Your task to perform on an android device: turn off javascript in the chrome app Image 0: 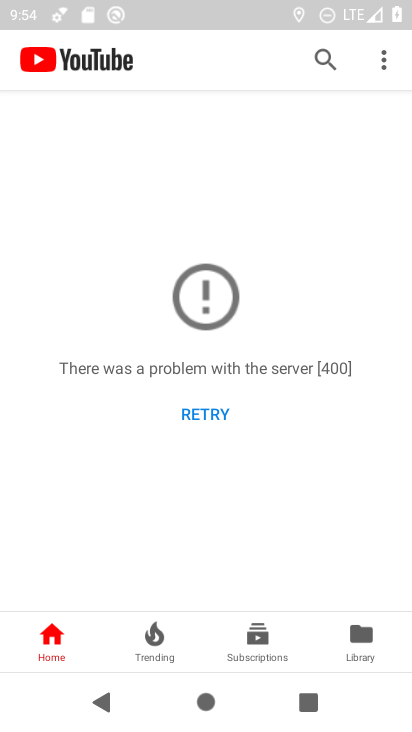
Step 0: press home button
Your task to perform on an android device: turn off javascript in the chrome app Image 1: 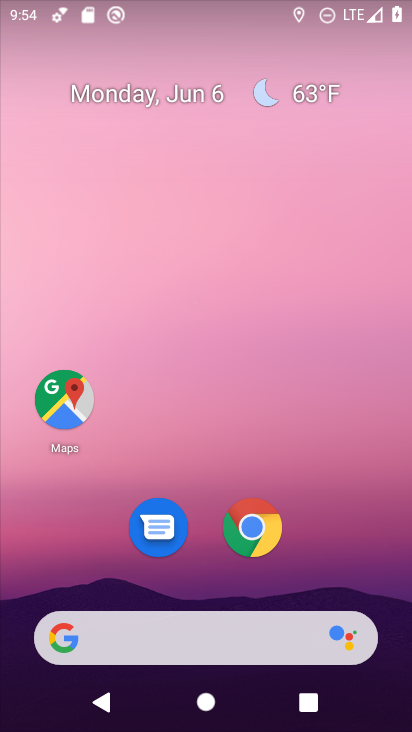
Step 1: drag from (364, 544) to (378, 124)
Your task to perform on an android device: turn off javascript in the chrome app Image 2: 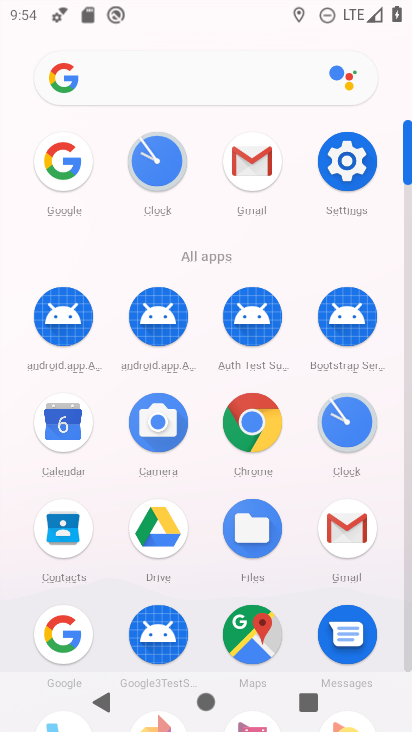
Step 2: click (255, 431)
Your task to perform on an android device: turn off javascript in the chrome app Image 3: 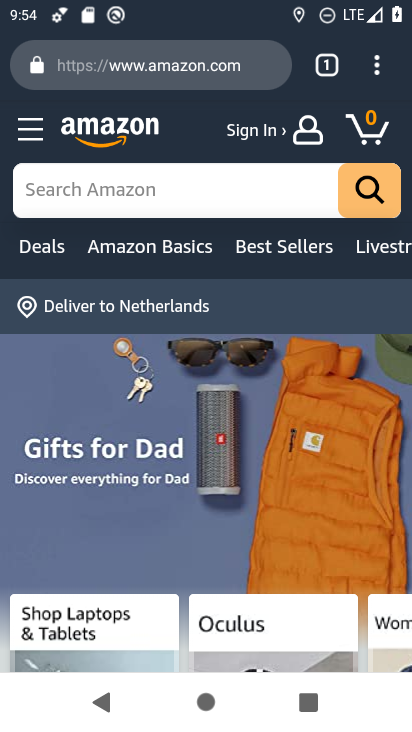
Step 3: click (376, 70)
Your task to perform on an android device: turn off javascript in the chrome app Image 4: 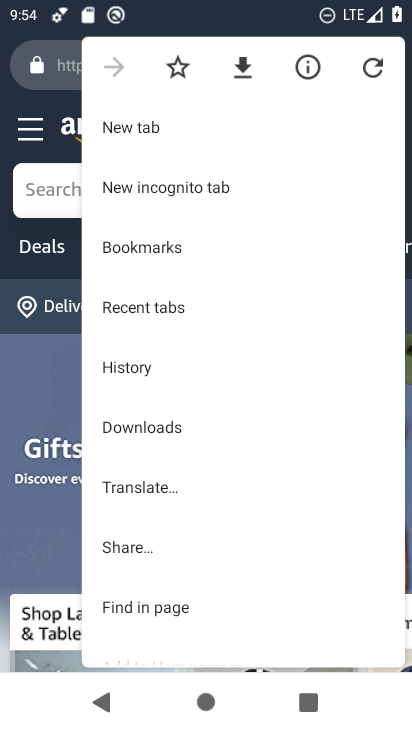
Step 4: drag from (308, 401) to (328, 301)
Your task to perform on an android device: turn off javascript in the chrome app Image 5: 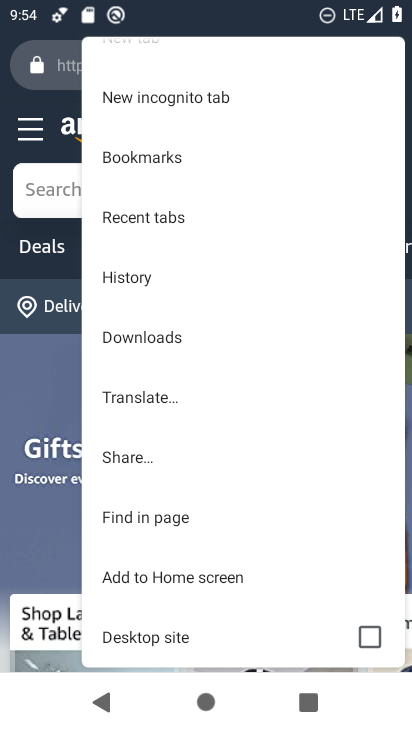
Step 5: drag from (306, 476) to (310, 336)
Your task to perform on an android device: turn off javascript in the chrome app Image 6: 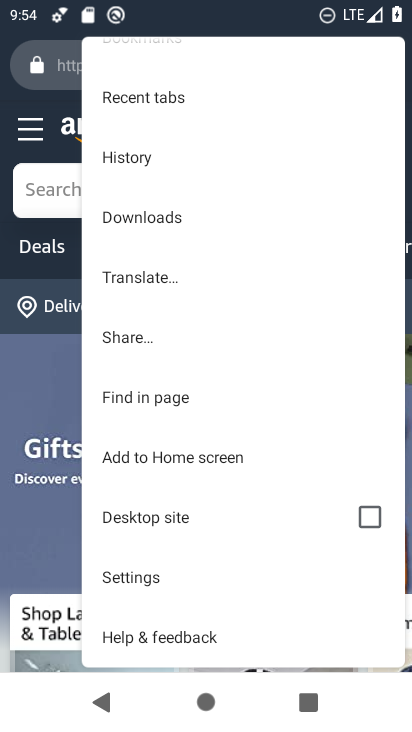
Step 6: click (185, 582)
Your task to perform on an android device: turn off javascript in the chrome app Image 7: 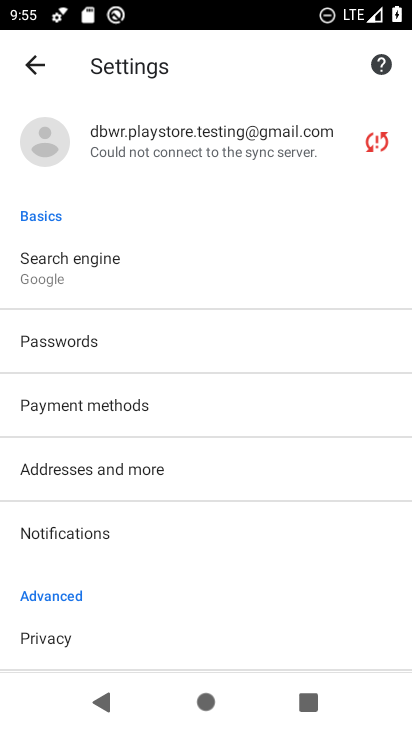
Step 7: drag from (307, 534) to (322, 395)
Your task to perform on an android device: turn off javascript in the chrome app Image 8: 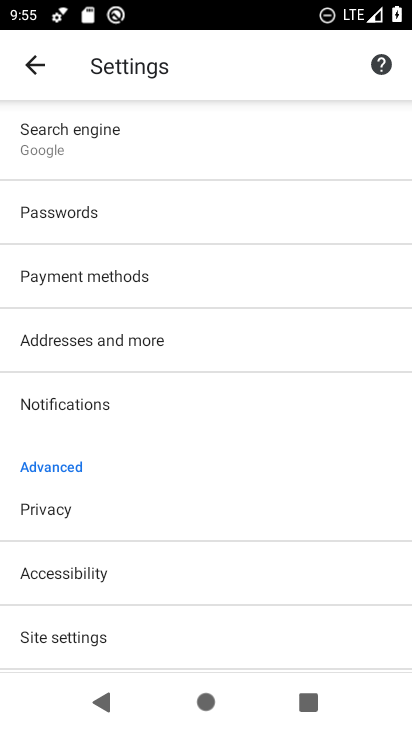
Step 8: drag from (299, 546) to (305, 364)
Your task to perform on an android device: turn off javascript in the chrome app Image 9: 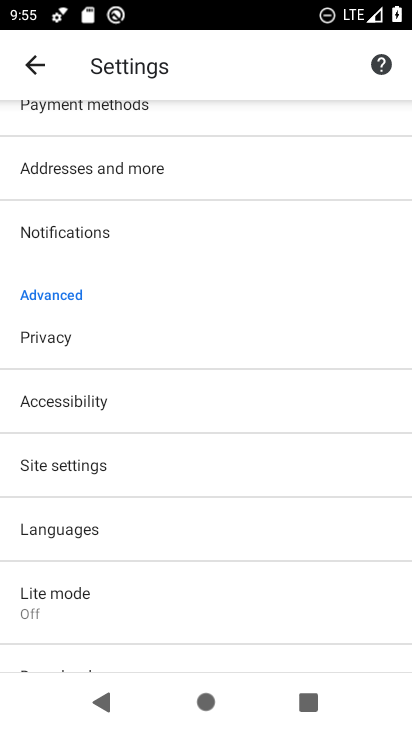
Step 9: drag from (280, 554) to (284, 360)
Your task to perform on an android device: turn off javascript in the chrome app Image 10: 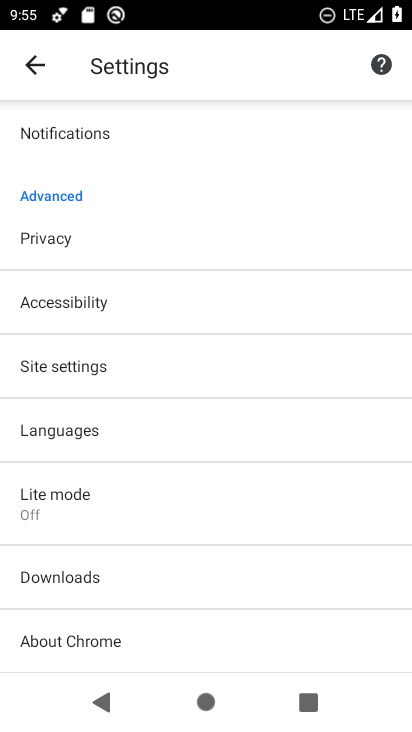
Step 10: click (252, 359)
Your task to perform on an android device: turn off javascript in the chrome app Image 11: 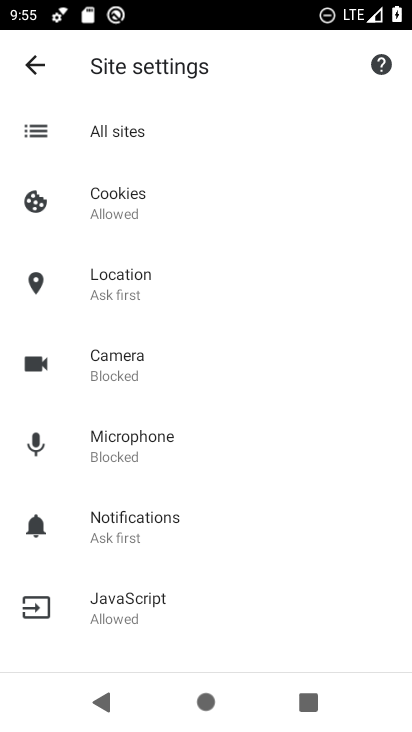
Step 11: drag from (308, 503) to (314, 384)
Your task to perform on an android device: turn off javascript in the chrome app Image 12: 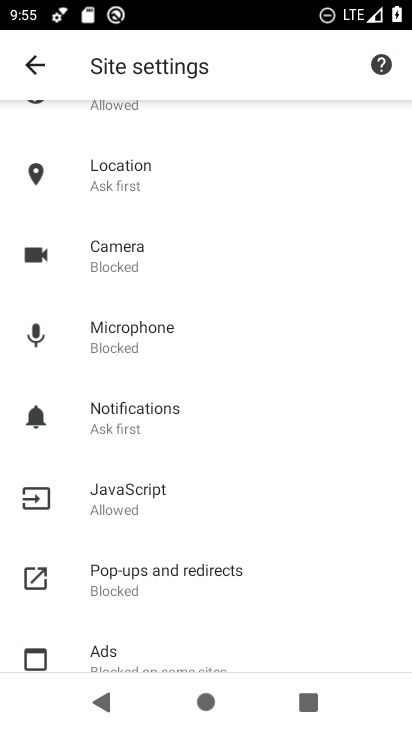
Step 12: drag from (340, 559) to (347, 382)
Your task to perform on an android device: turn off javascript in the chrome app Image 13: 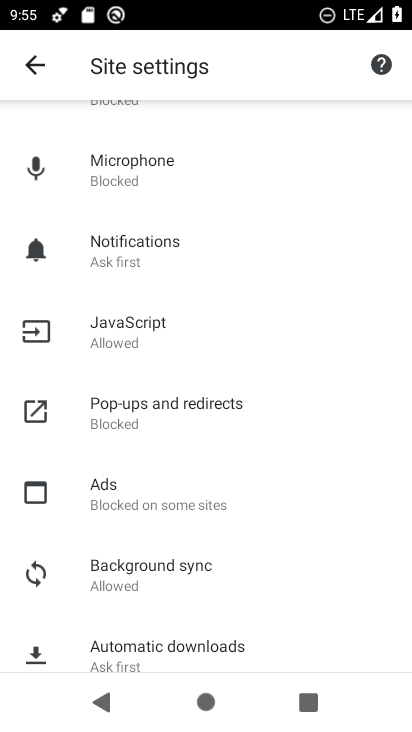
Step 13: click (164, 344)
Your task to perform on an android device: turn off javascript in the chrome app Image 14: 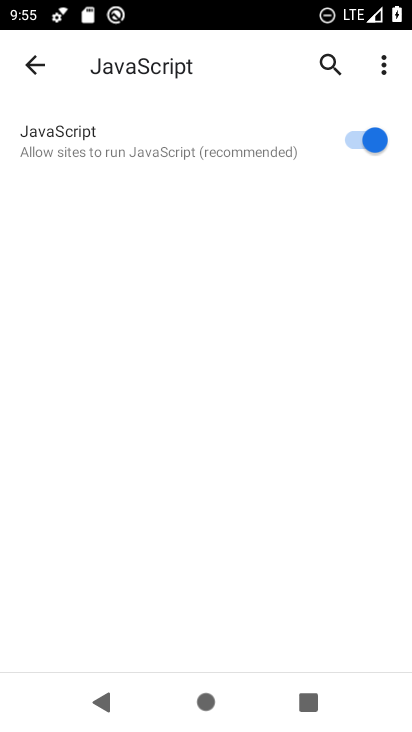
Step 14: click (368, 147)
Your task to perform on an android device: turn off javascript in the chrome app Image 15: 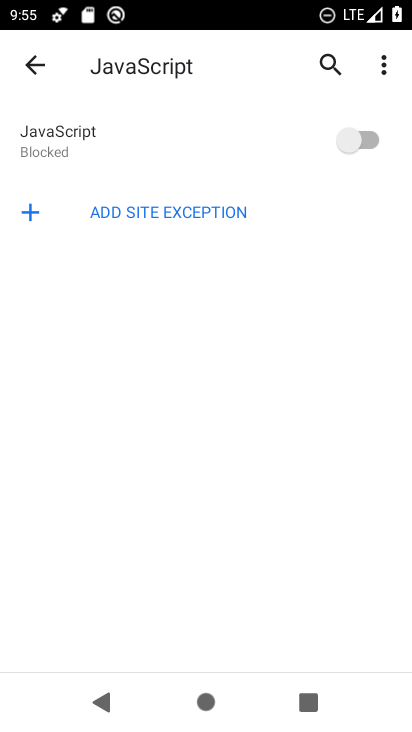
Step 15: task complete